Your task to perform on an android device: check storage Image 0: 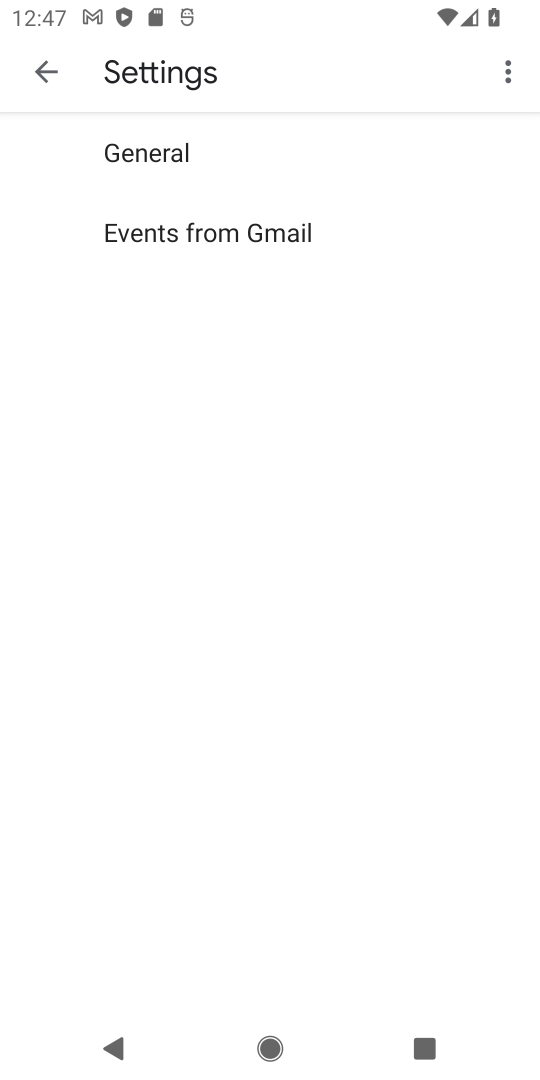
Step 0: press home button
Your task to perform on an android device: check storage Image 1: 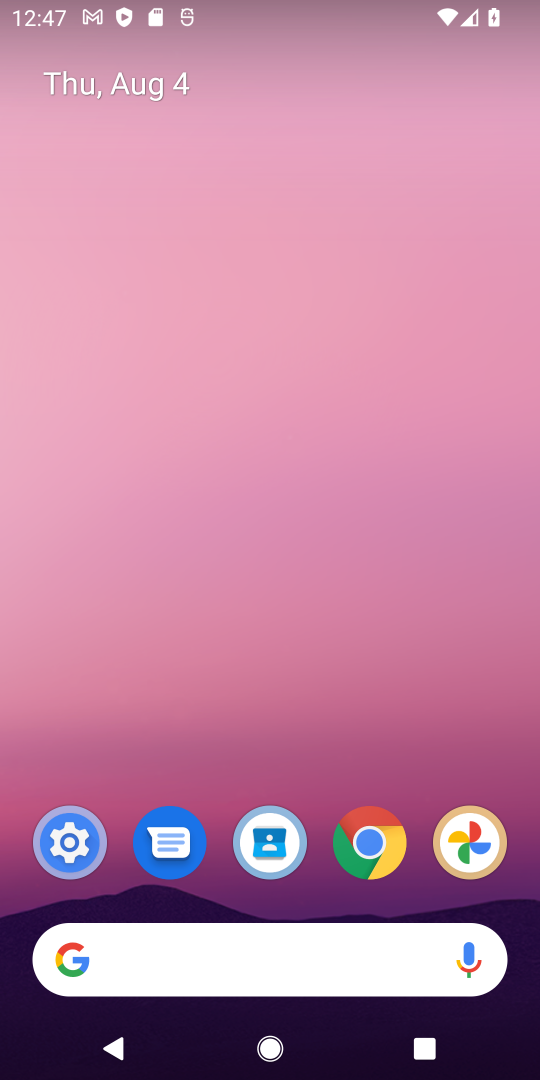
Step 1: click (67, 827)
Your task to perform on an android device: check storage Image 2: 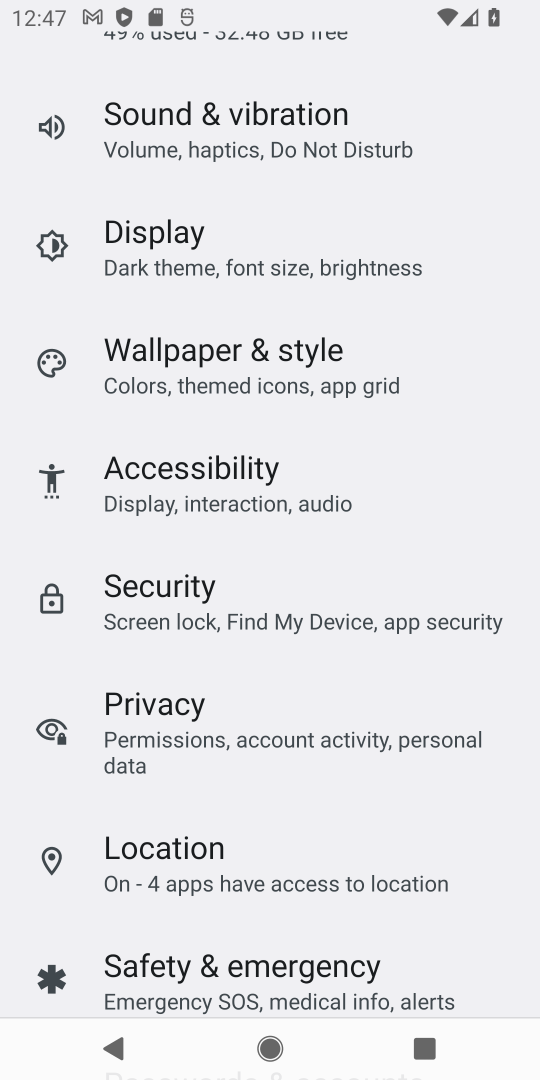
Step 2: drag from (337, 471) to (419, 959)
Your task to perform on an android device: check storage Image 3: 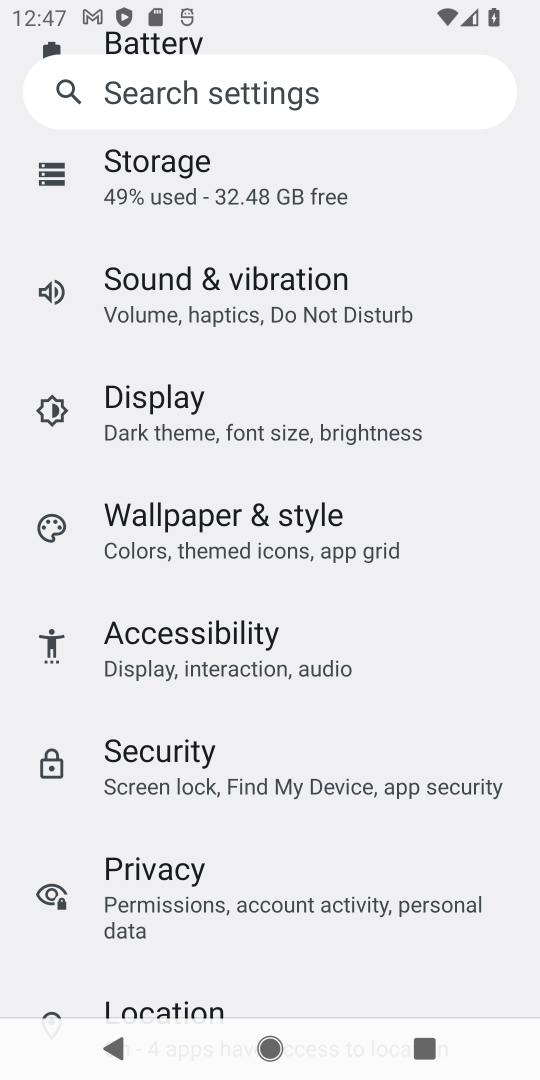
Step 3: click (238, 193)
Your task to perform on an android device: check storage Image 4: 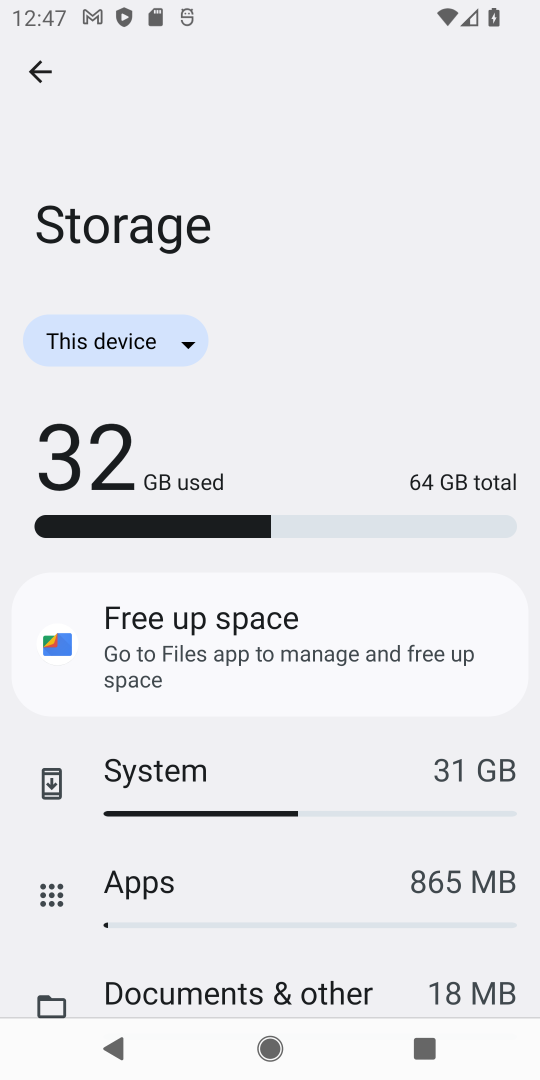
Step 4: task complete